Your task to perform on an android device: Go to settings Image 0: 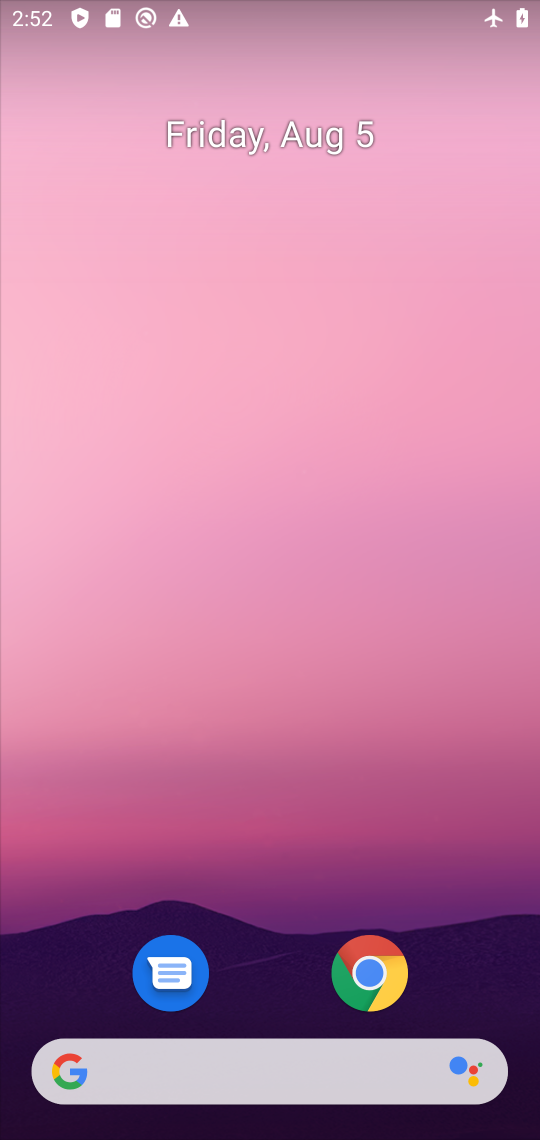
Step 0: drag from (272, 1006) to (146, 140)
Your task to perform on an android device: Go to settings Image 1: 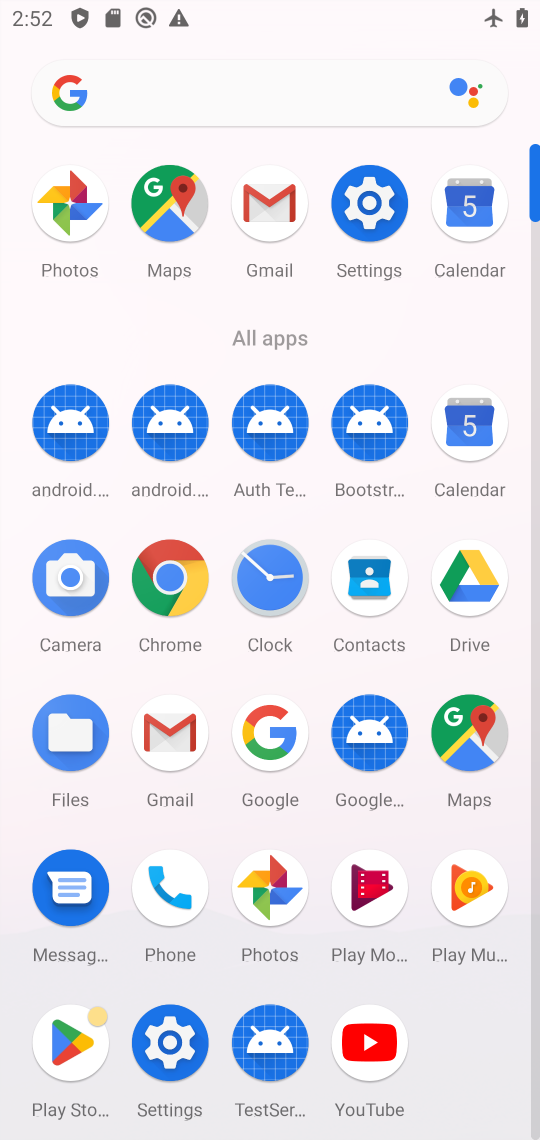
Step 1: click (151, 1056)
Your task to perform on an android device: Go to settings Image 2: 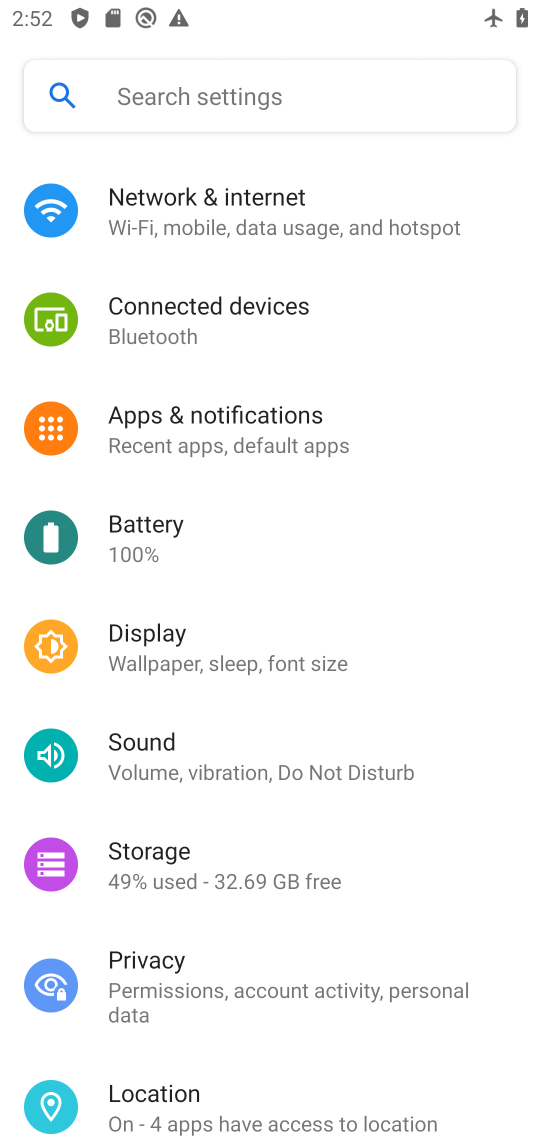
Step 2: task complete